Your task to perform on an android device: Open eBay Image 0: 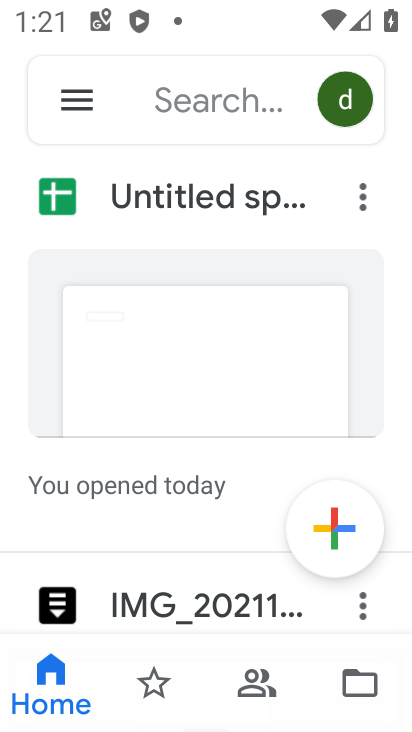
Step 0: press home button
Your task to perform on an android device: Open eBay Image 1: 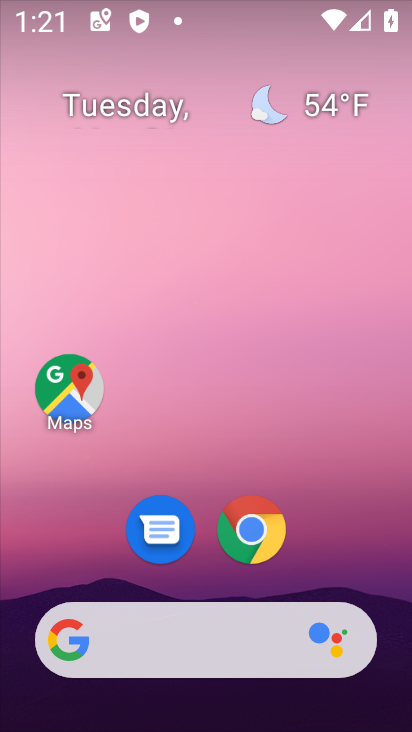
Step 1: click (250, 532)
Your task to perform on an android device: Open eBay Image 2: 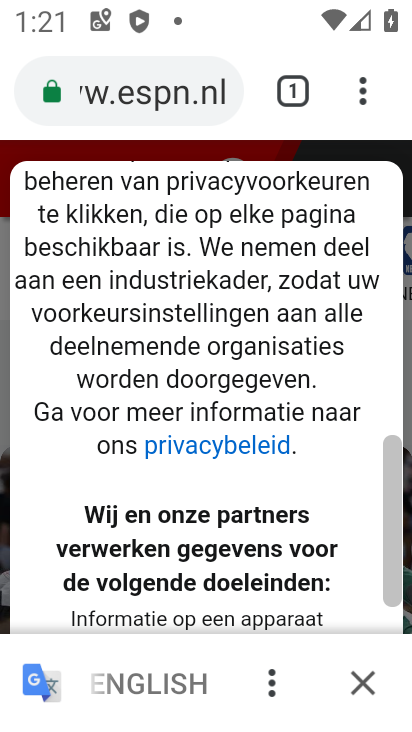
Step 2: click (214, 95)
Your task to perform on an android device: Open eBay Image 3: 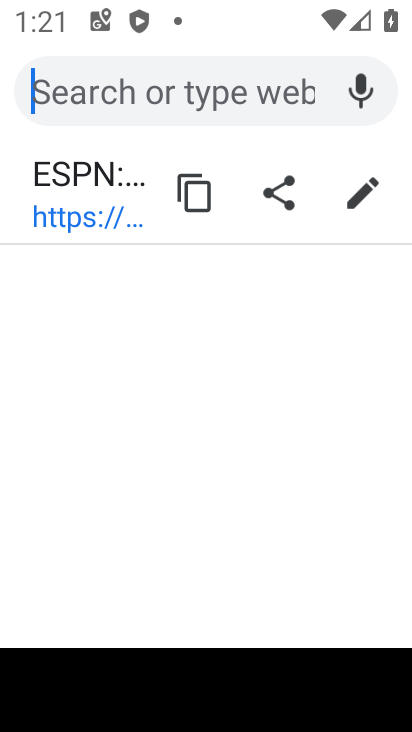
Step 3: type "eBay"
Your task to perform on an android device: Open eBay Image 4: 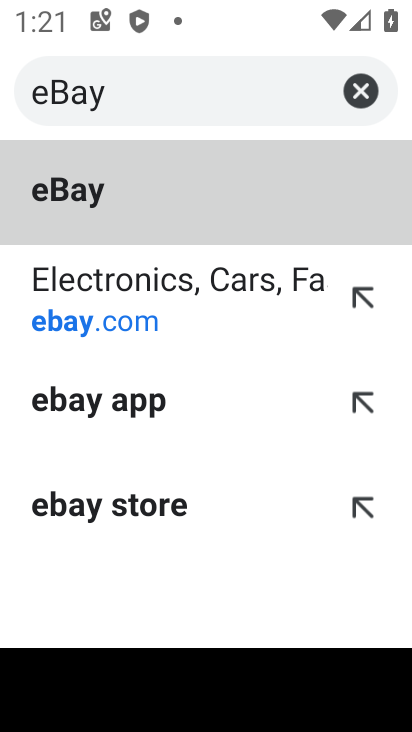
Step 4: click (293, 272)
Your task to perform on an android device: Open eBay Image 5: 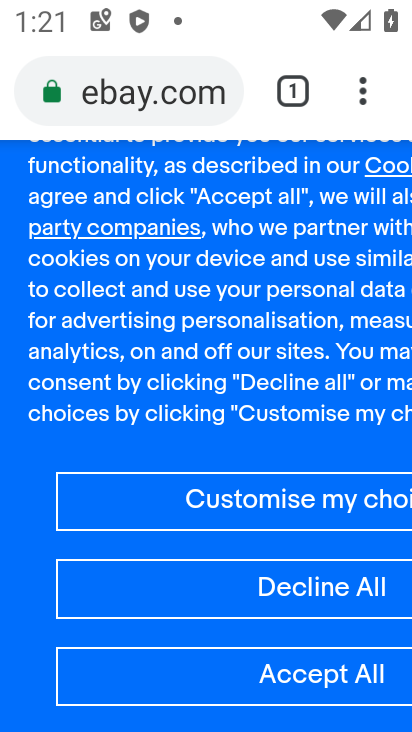
Step 5: task complete